Your task to perform on an android device: Open privacy settings Image 0: 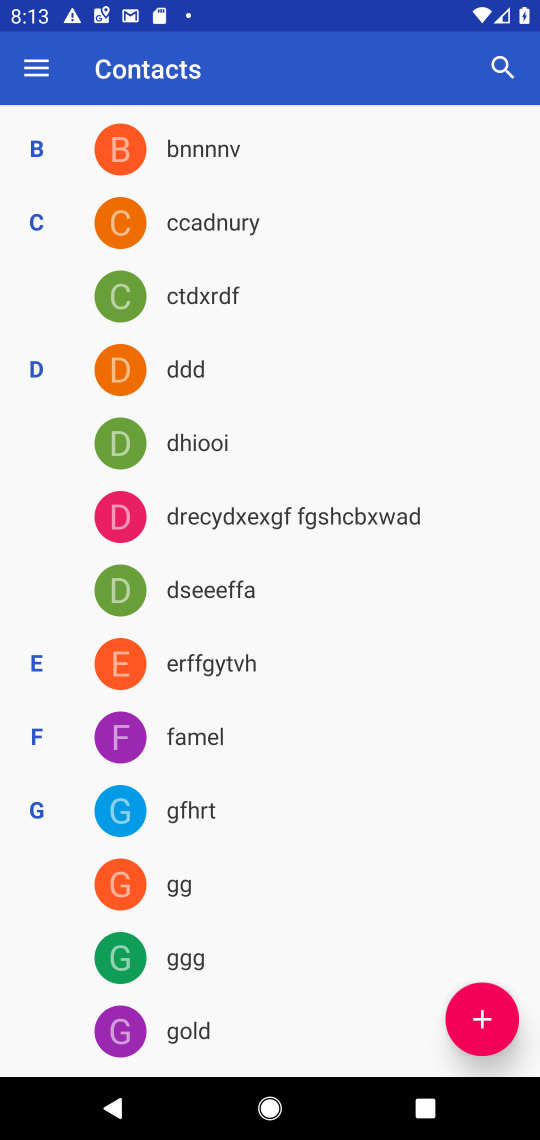
Step 0: press home button
Your task to perform on an android device: Open privacy settings Image 1: 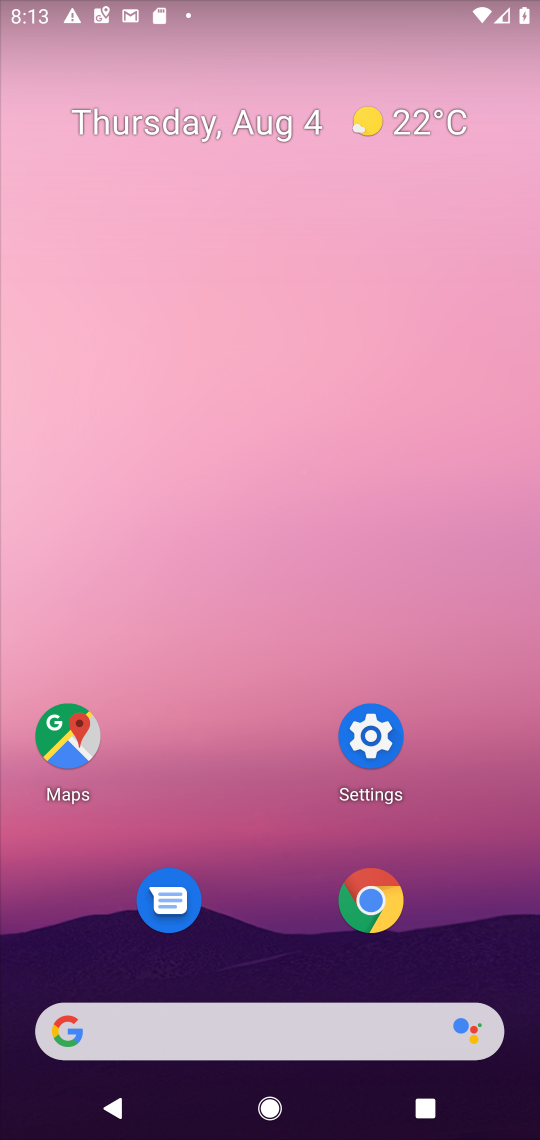
Step 1: click (373, 735)
Your task to perform on an android device: Open privacy settings Image 2: 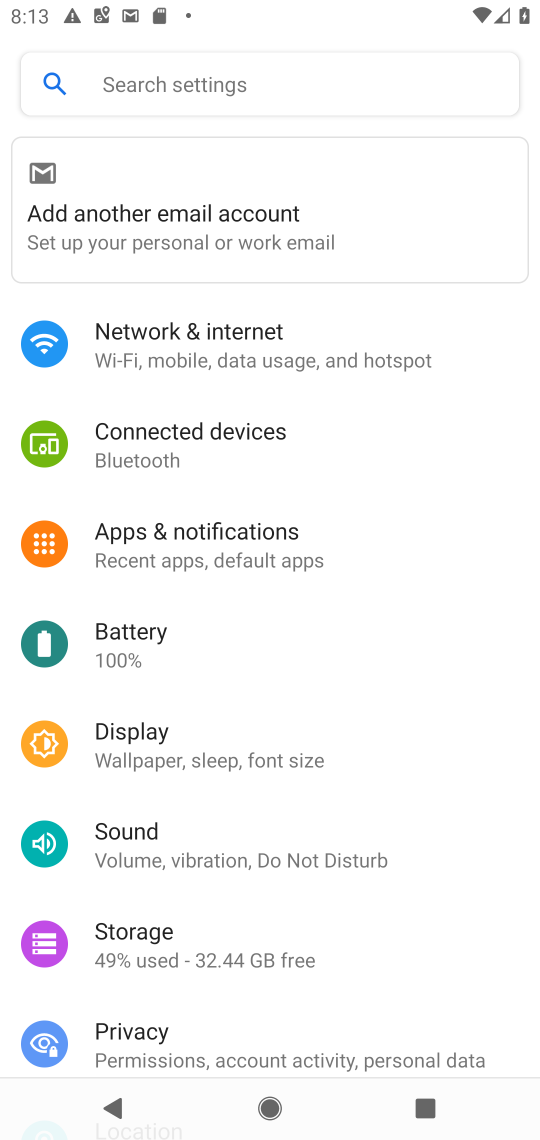
Step 2: drag from (361, 999) to (500, 324)
Your task to perform on an android device: Open privacy settings Image 3: 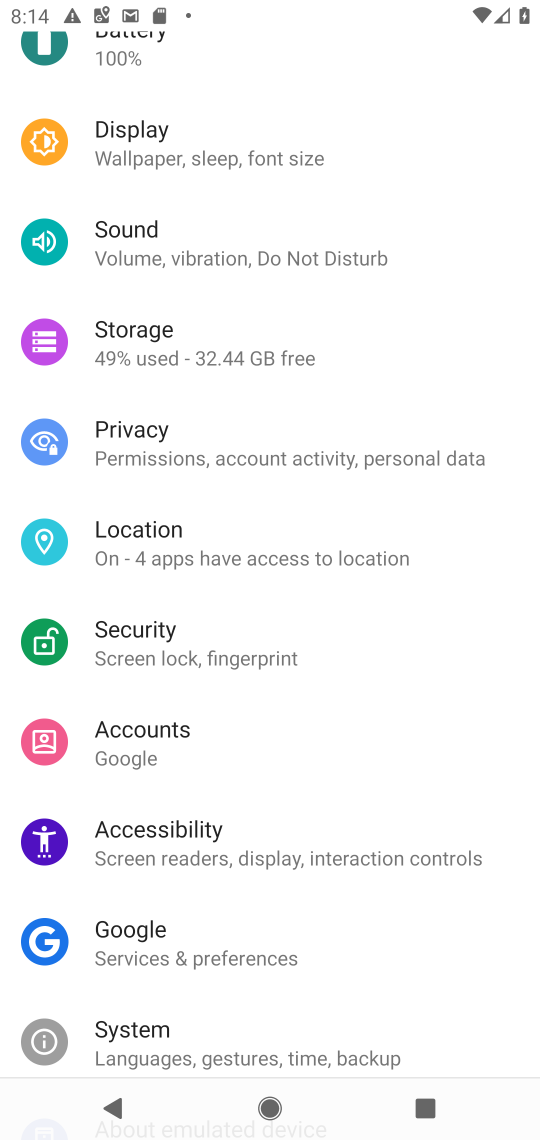
Step 3: click (178, 442)
Your task to perform on an android device: Open privacy settings Image 4: 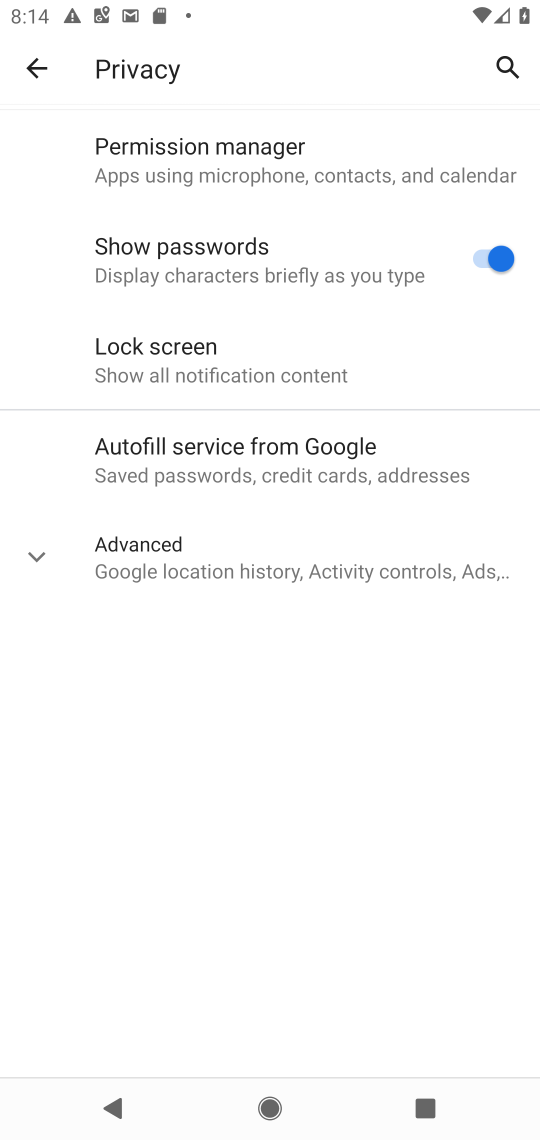
Step 4: task complete